Your task to perform on an android device: remove spam from my inbox in the gmail app Image 0: 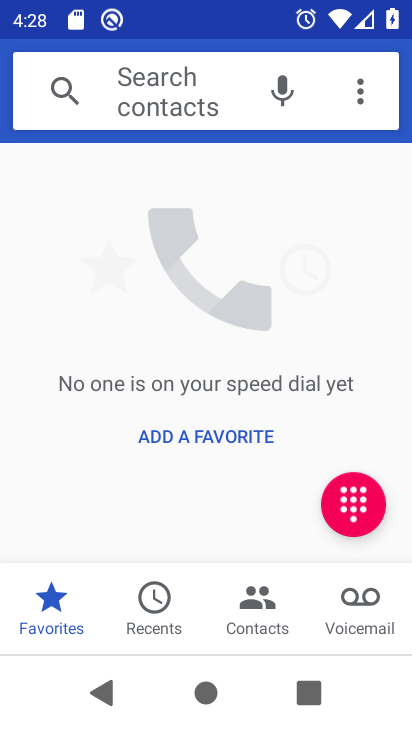
Step 0: press home button
Your task to perform on an android device: remove spam from my inbox in the gmail app Image 1: 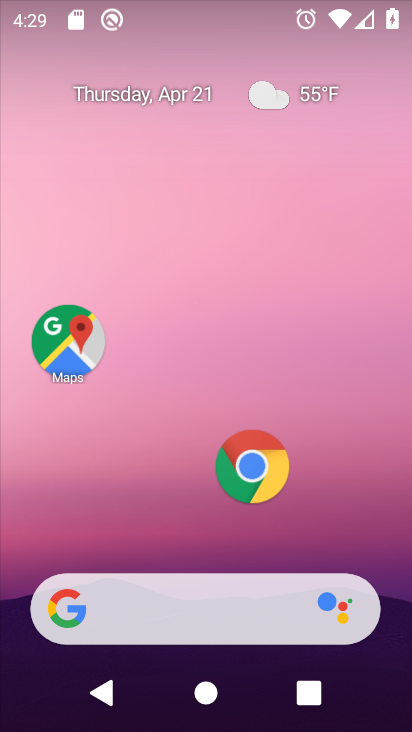
Step 1: drag from (223, 374) to (258, 10)
Your task to perform on an android device: remove spam from my inbox in the gmail app Image 2: 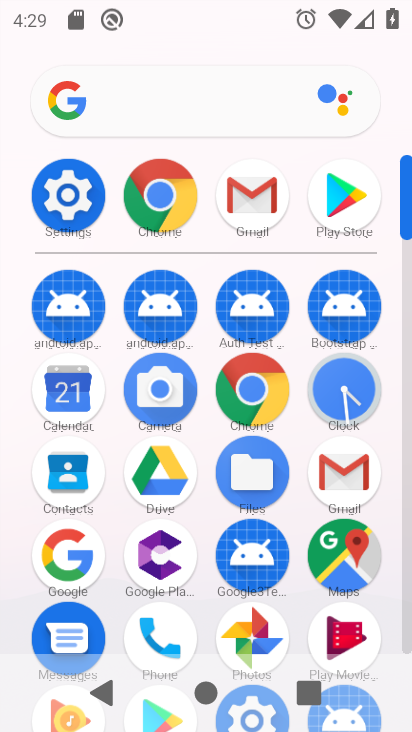
Step 2: click (262, 205)
Your task to perform on an android device: remove spam from my inbox in the gmail app Image 3: 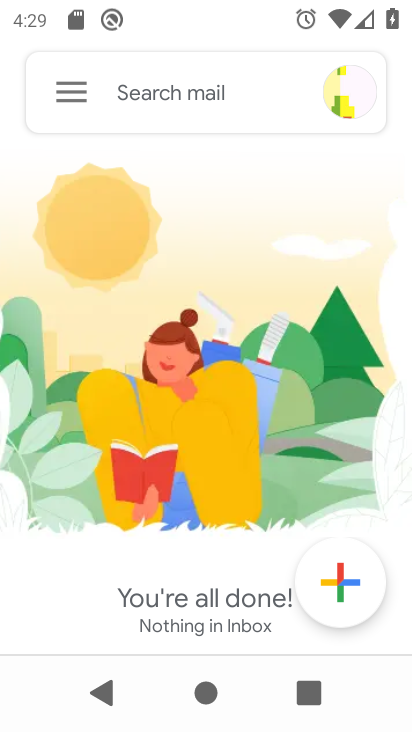
Step 3: click (67, 101)
Your task to perform on an android device: remove spam from my inbox in the gmail app Image 4: 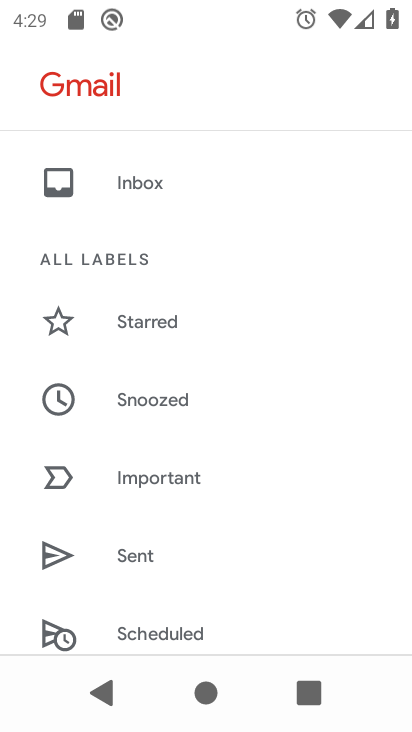
Step 4: drag from (208, 560) to (276, 47)
Your task to perform on an android device: remove spam from my inbox in the gmail app Image 5: 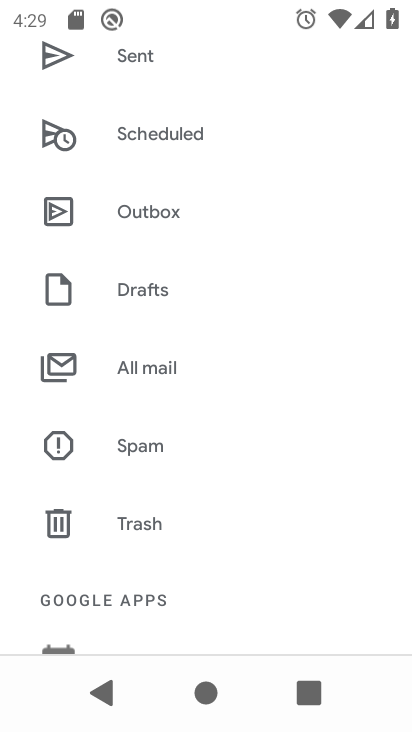
Step 5: click (182, 457)
Your task to perform on an android device: remove spam from my inbox in the gmail app Image 6: 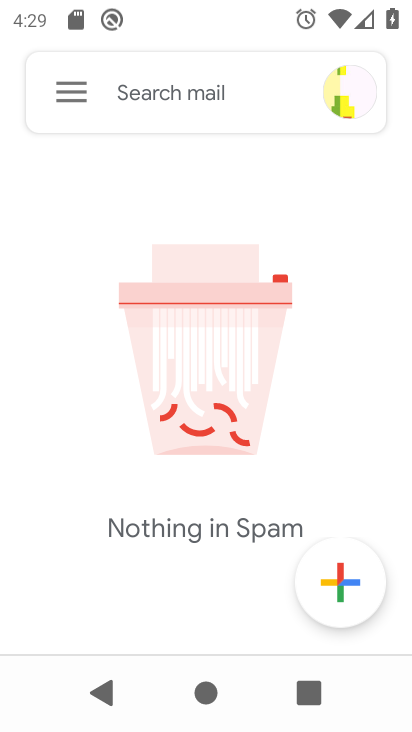
Step 6: task complete